Your task to perform on an android device: check google app version Image 0: 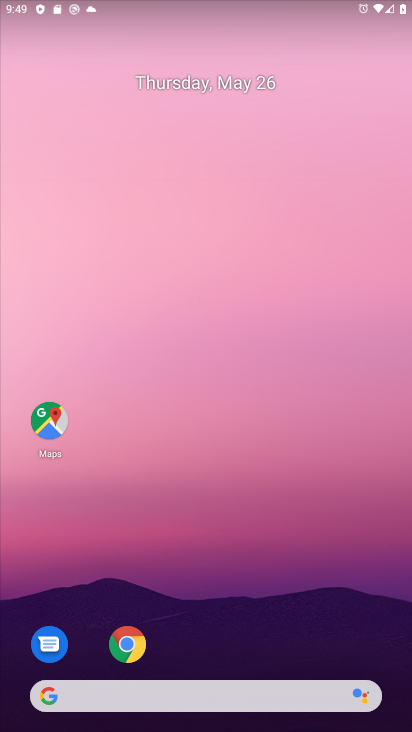
Step 0: drag from (224, 655) to (234, 212)
Your task to perform on an android device: check google app version Image 1: 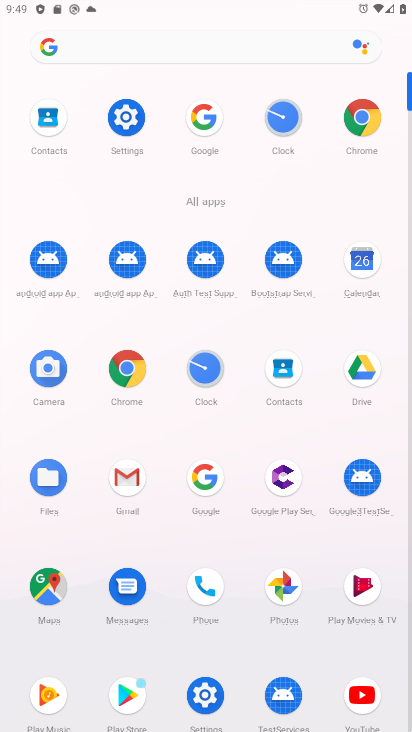
Step 1: click (198, 130)
Your task to perform on an android device: check google app version Image 2: 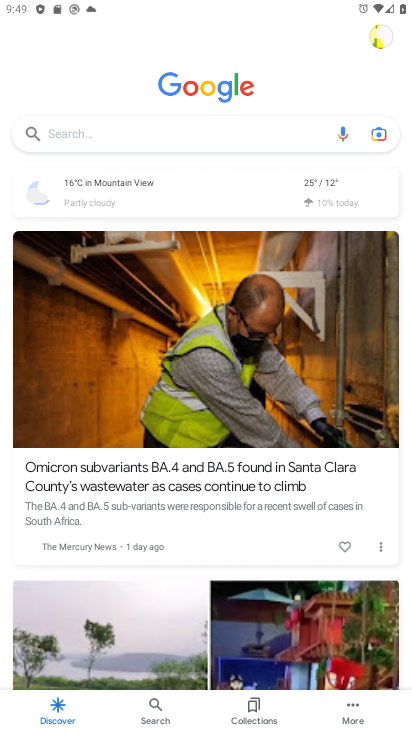
Step 2: click (197, 131)
Your task to perform on an android device: check google app version Image 3: 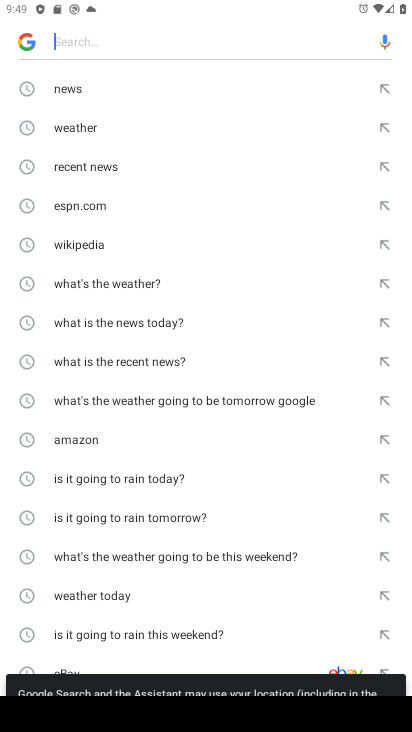
Step 3: press back button
Your task to perform on an android device: check google app version Image 4: 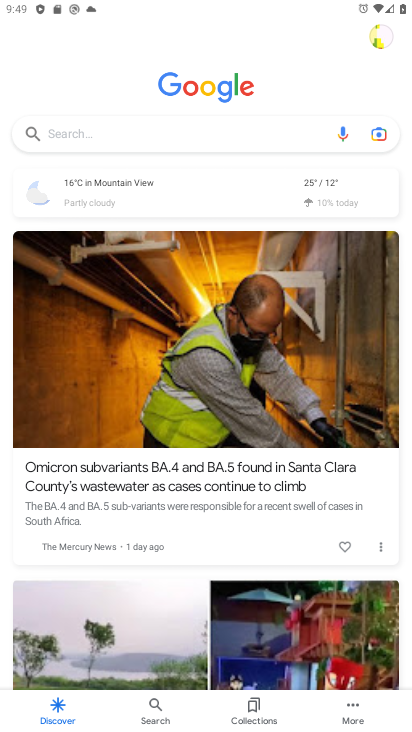
Step 4: click (360, 711)
Your task to perform on an android device: check google app version Image 5: 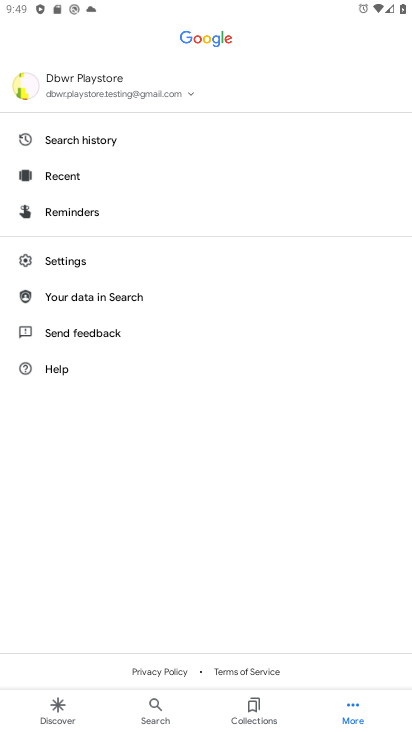
Step 5: click (77, 270)
Your task to perform on an android device: check google app version Image 6: 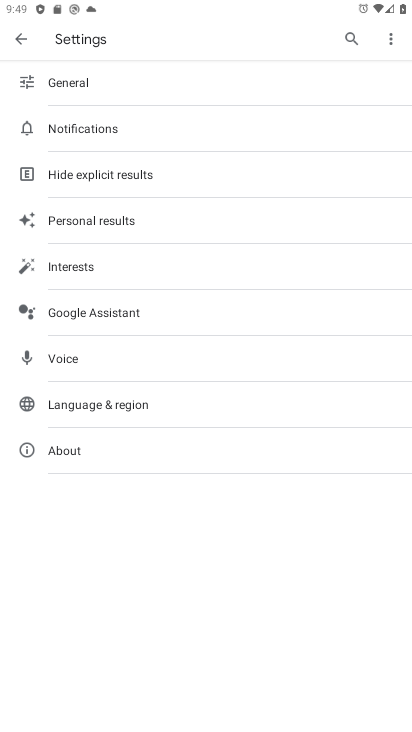
Step 6: click (111, 457)
Your task to perform on an android device: check google app version Image 7: 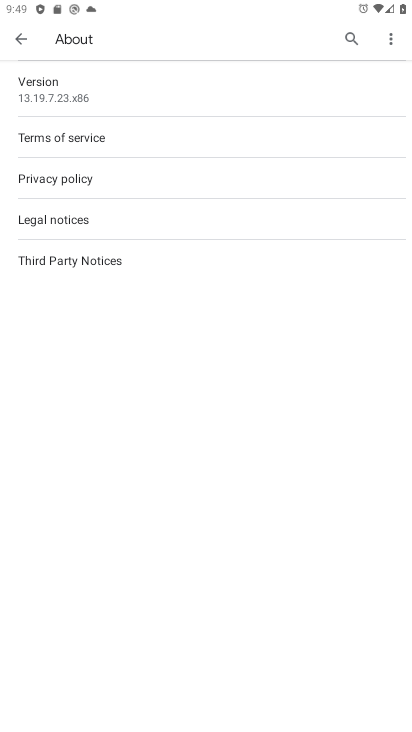
Step 7: click (84, 89)
Your task to perform on an android device: check google app version Image 8: 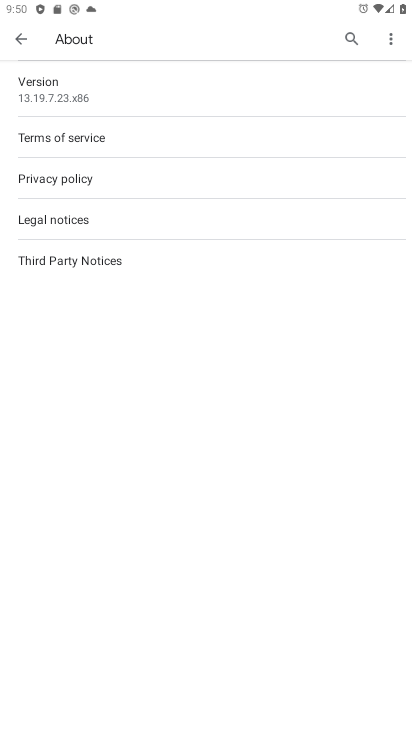
Step 8: click (186, 84)
Your task to perform on an android device: check google app version Image 9: 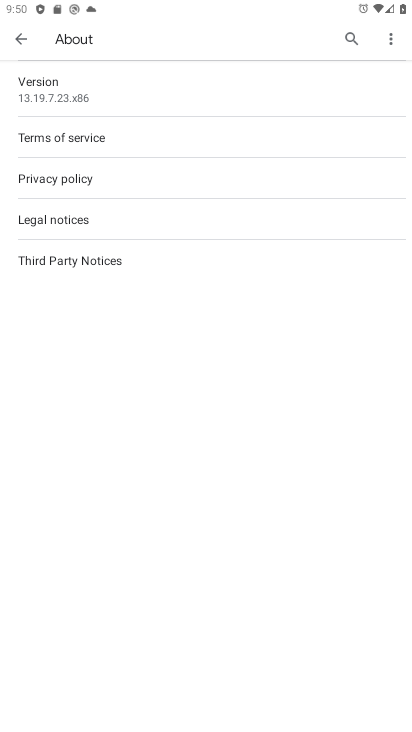
Step 9: task complete